Your task to perform on an android device: Go to location settings Image 0: 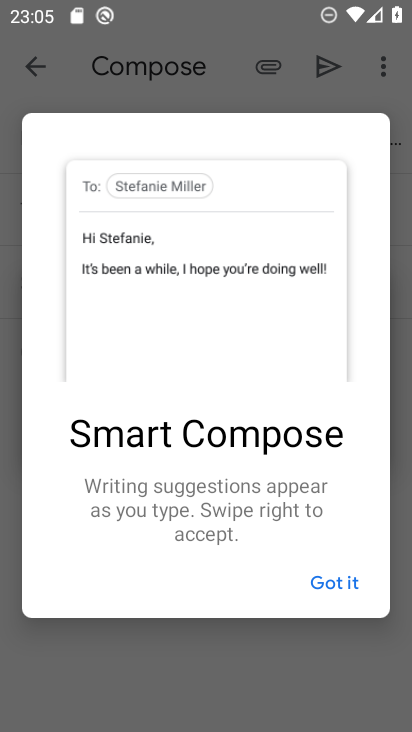
Step 0: press home button
Your task to perform on an android device: Go to location settings Image 1: 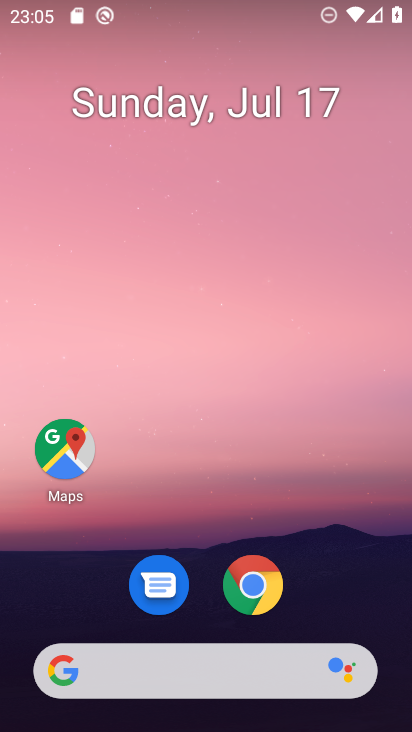
Step 1: drag from (205, 658) to (299, 177)
Your task to perform on an android device: Go to location settings Image 2: 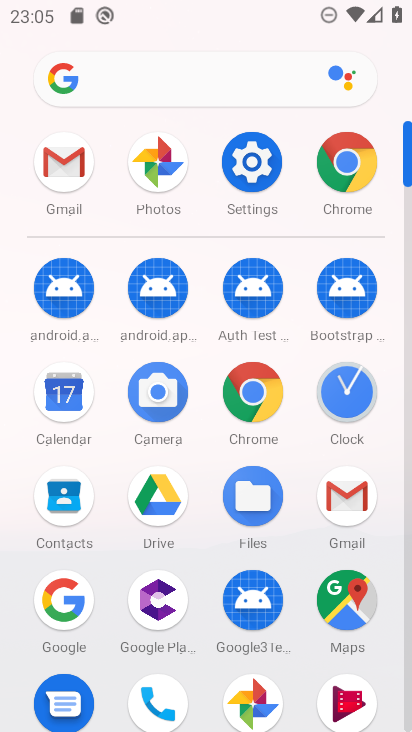
Step 2: click (252, 170)
Your task to perform on an android device: Go to location settings Image 3: 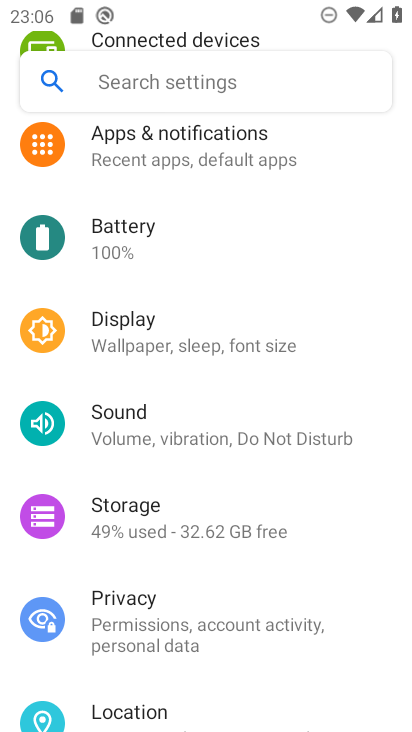
Step 3: click (157, 704)
Your task to perform on an android device: Go to location settings Image 4: 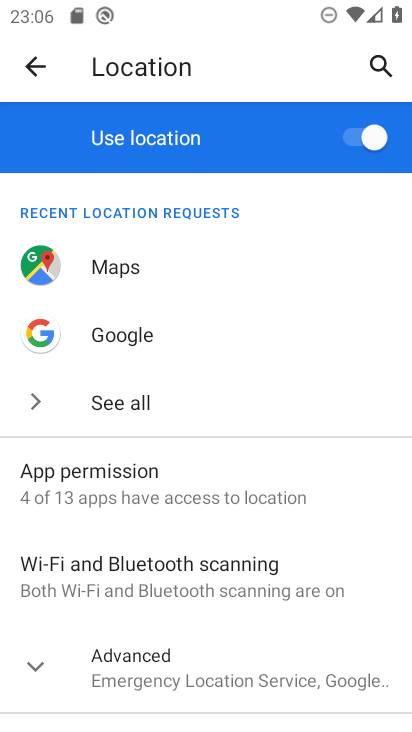
Step 4: task complete